Your task to perform on an android device: turn off translation in the chrome app Image 0: 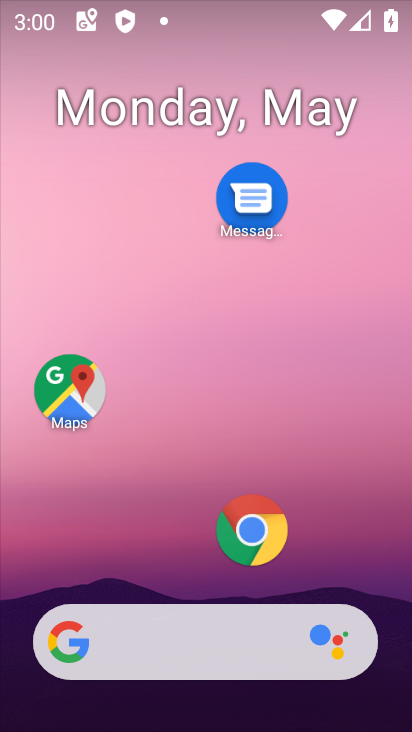
Step 0: click (242, 536)
Your task to perform on an android device: turn off translation in the chrome app Image 1: 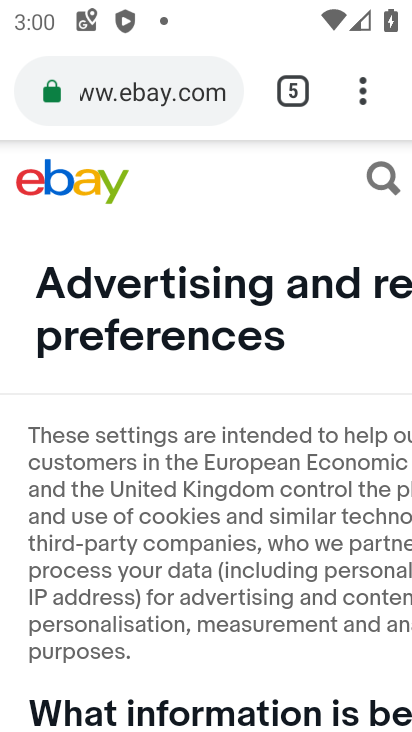
Step 1: drag from (351, 85) to (110, 564)
Your task to perform on an android device: turn off translation in the chrome app Image 2: 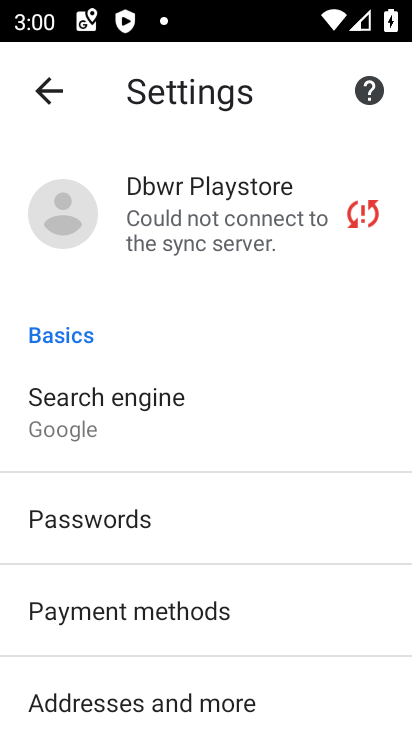
Step 2: drag from (177, 677) to (275, 144)
Your task to perform on an android device: turn off translation in the chrome app Image 3: 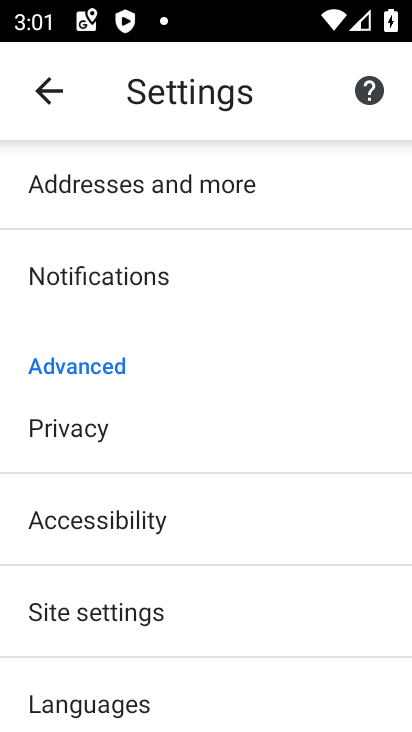
Step 3: click (128, 705)
Your task to perform on an android device: turn off translation in the chrome app Image 4: 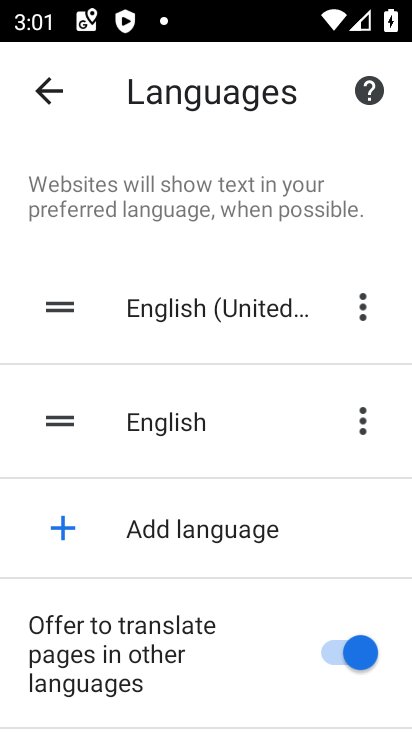
Step 4: click (329, 651)
Your task to perform on an android device: turn off translation in the chrome app Image 5: 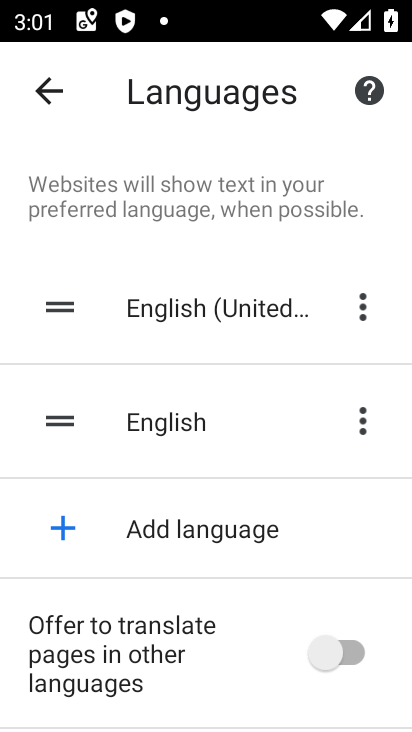
Step 5: task complete